Your task to perform on an android device: Open sound settings Image 0: 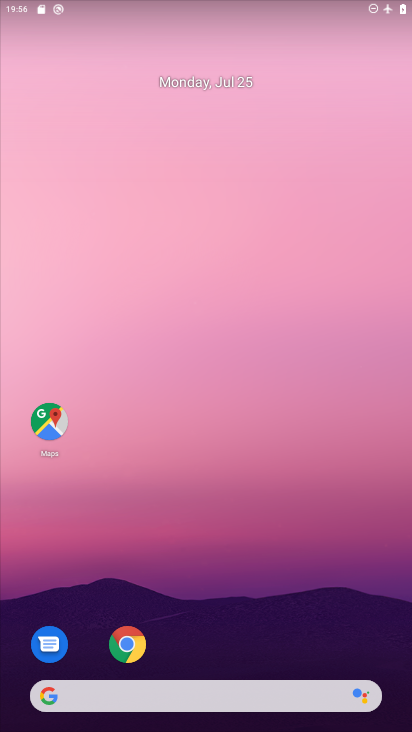
Step 0: press home button
Your task to perform on an android device: Open sound settings Image 1: 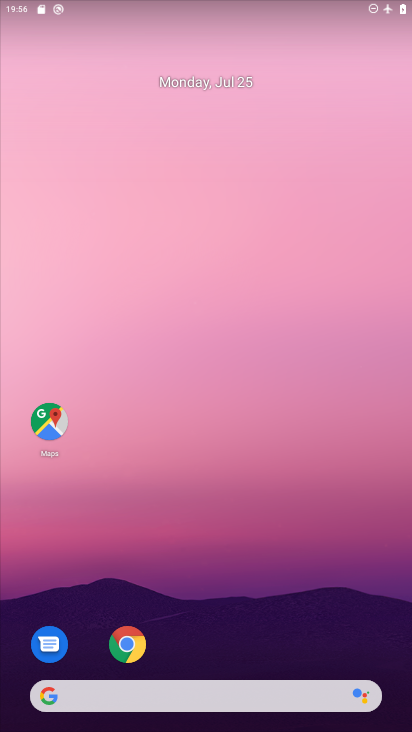
Step 1: drag from (225, 656) to (220, 114)
Your task to perform on an android device: Open sound settings Image 2: 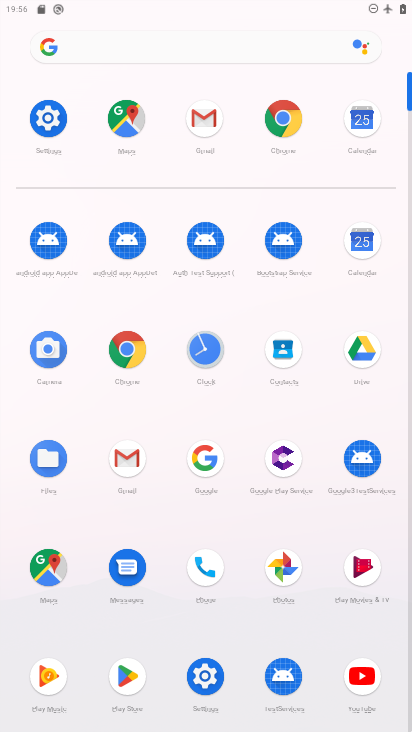
Step 2: click (43, 111)
Your task to perform on an android device: Open sound settings Image 3: 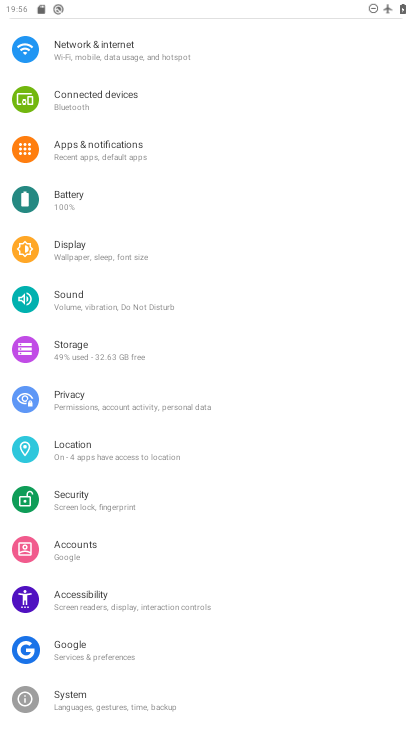
Step 3: click (94, 290)
Your task to perform on an android device: Open sound settings Image 4: 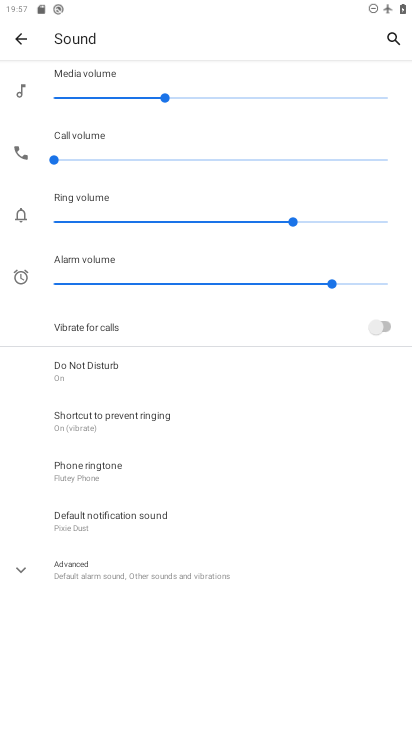
Step 4: click (20, 563)
Your task to perform on an android device: Open sound settings Image 5: 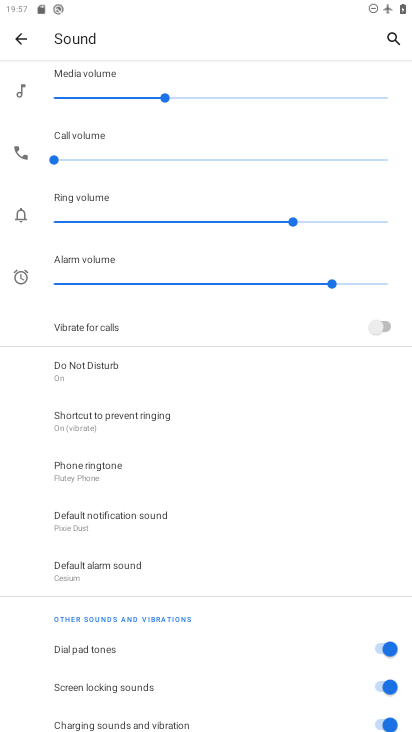
Step 5: task complete